Your task to perform on an android device: check the backup settings in the google photos Image 0: 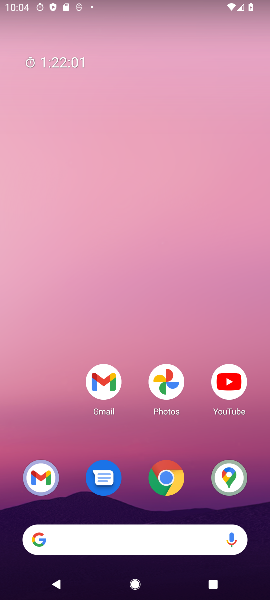
Step 0: drag from (130, 449) to (151, 120)
Your task to perform on an android device: check the backup settings in the google photos Image 1: 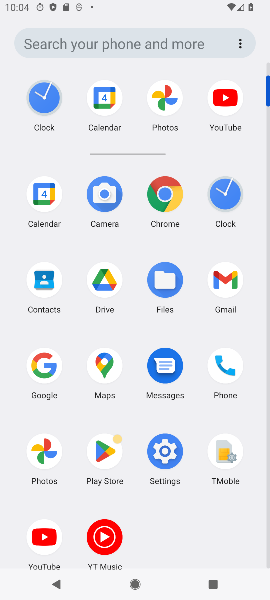
Step 1: click (47, 449)
Your task to perform on an android device: check the backup settings in the google photos Image 2: 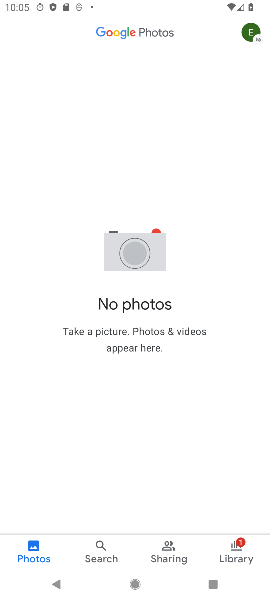
Step 2: click (254, 29)
Your task to perform on an android device: check the backup settings in the google photos Image 3: 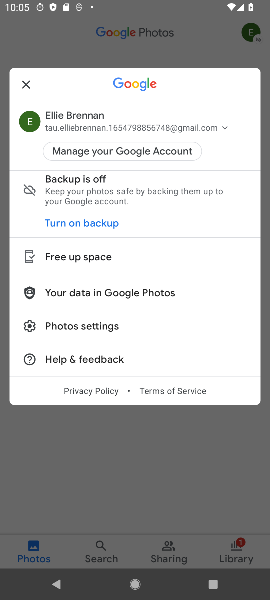
Step 3: click (90, 323)
Your task to perform on an android device: check the backup settings in the google photos Image 4: 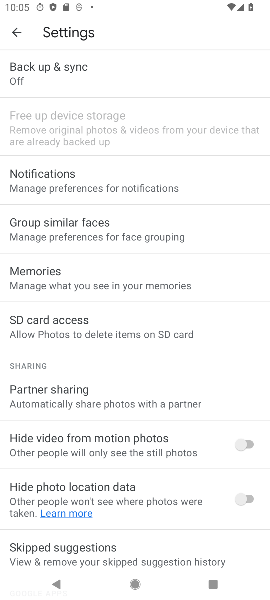
Step 4: click (63, 74)
Your task to perform on an android device: check the backup settings in the google photos Image 5: 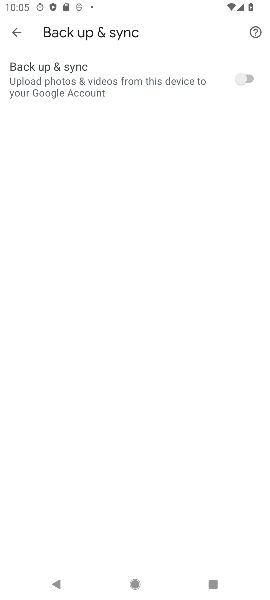
Step 5: click (53, 76)
Your task to perform on an android device: check the backup settings in the google photos Image 6: 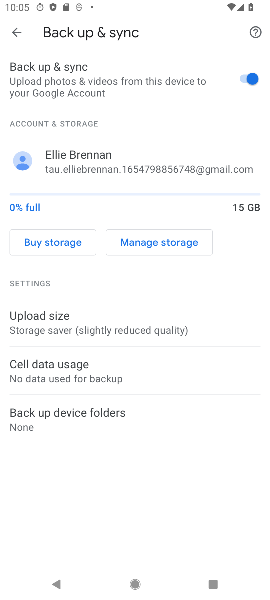
Step 6: task complete